Your task to perform on an android device: change the clock display to show seconds Image 0: 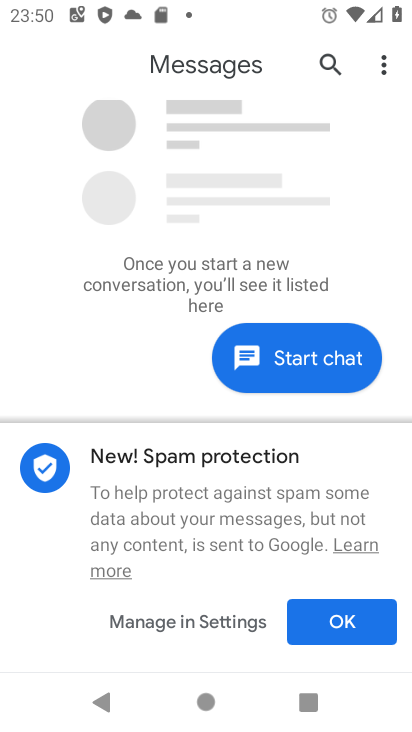
Step 0: press home button
Your task to perform on an android device: change the clock display to show seconds Image 1: 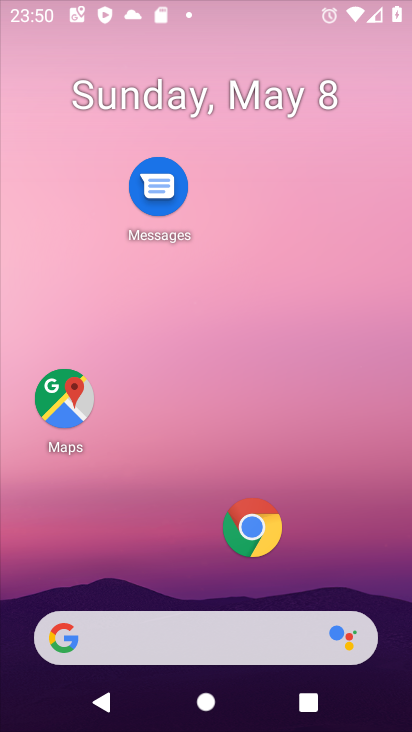
Step 1: drag from (206, 518) to (275, 2)
Your task to perform on an android device: change the clock display to show seconds Image 2: 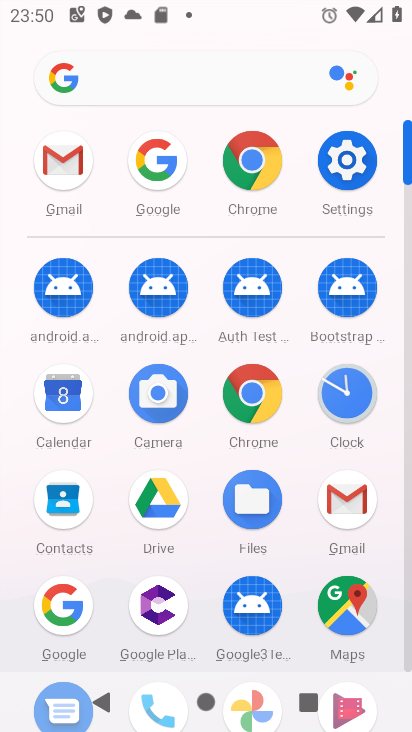
Step 2: click (351, 398)
Your task to perform on an android device: change the clock display to show seconds Image 3: 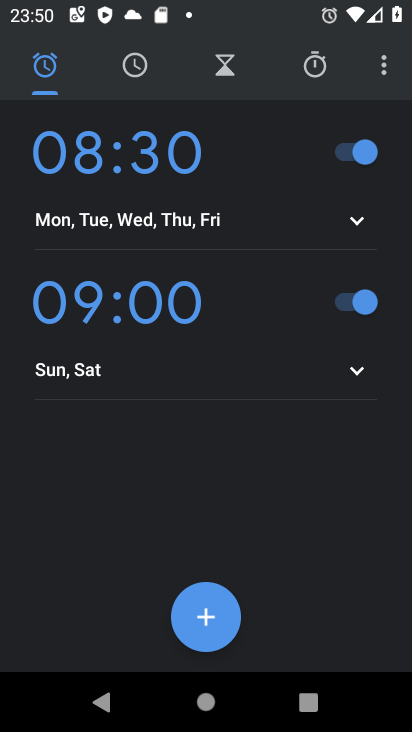
Step 3: click (371, 62)
Your task to perform on an android device: change the clock display to show seconds Image 4: 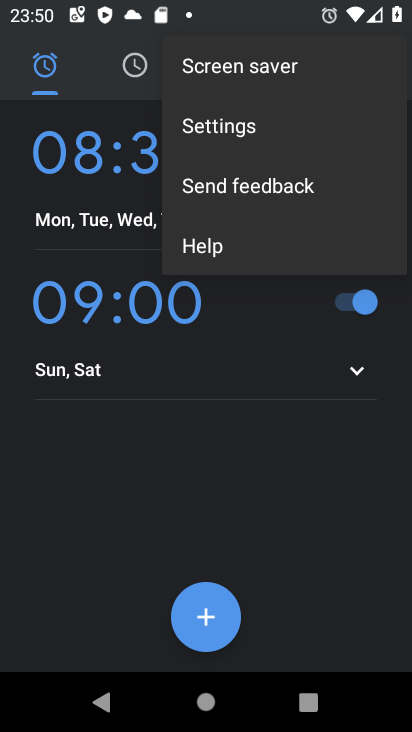
Step 4: click (275, 124)
Your task to perform on an android device: change the clock display to show seconds Image 5: 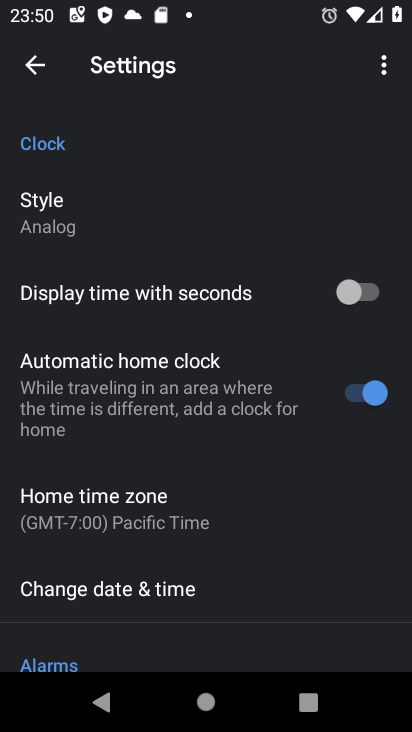
Step 5: click (357, 288)
Your task to perform on an android device: change the clock display to show seconds Image 6: 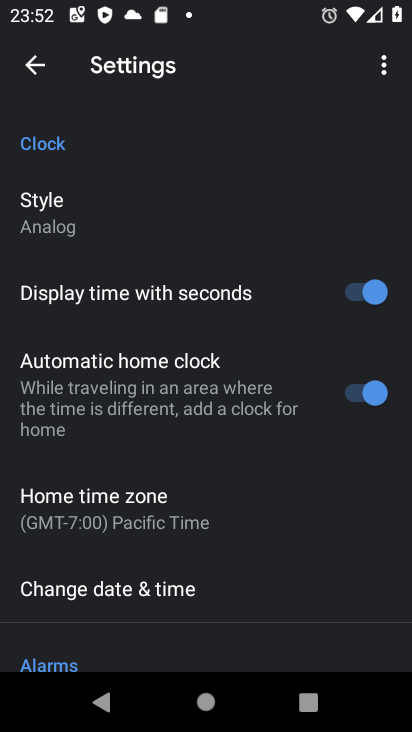
Step 6: task complete